Your task to perform on an android device: Turn on the flashlight Image 0: 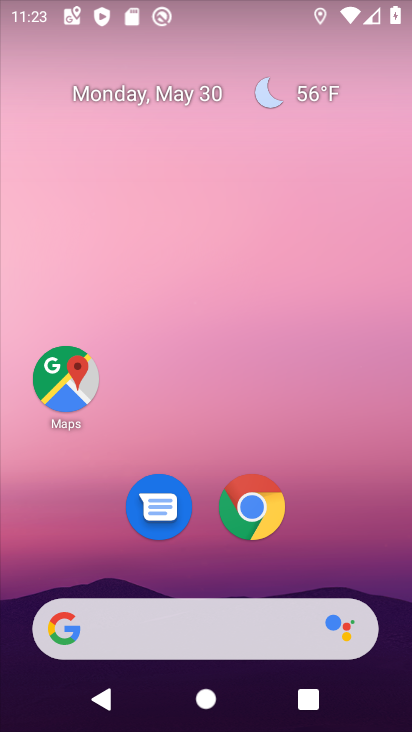
Step 0: click (244, 725)
Your task to perform on an android device: Turn on the flashlight Image 1: 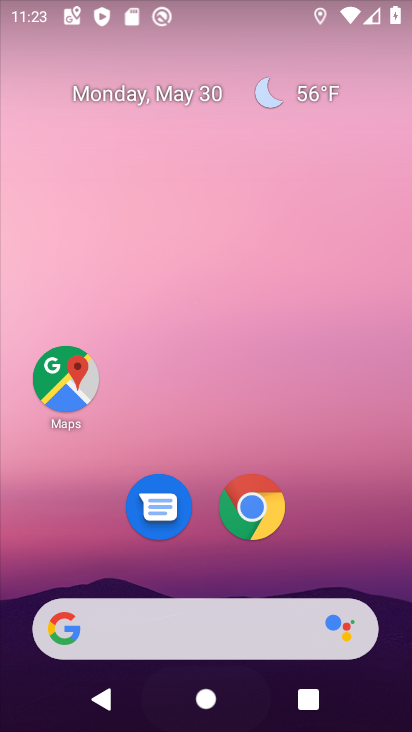
Step 1: drag from (225, 27) to (209, 550)
Your task to perform on an android device: Turn on the flashlight Image 2: 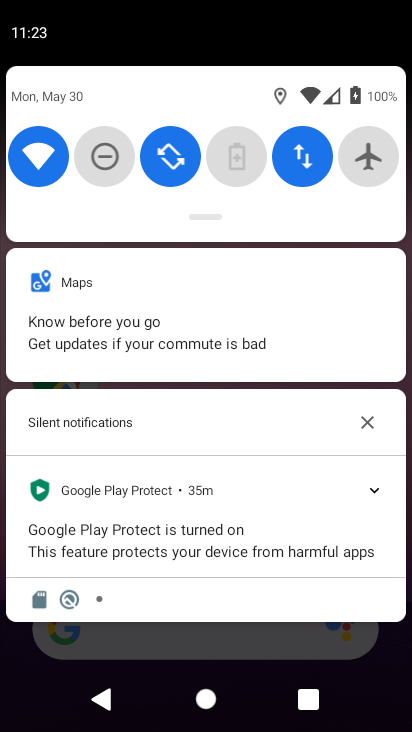
Step 2: drag from (214, 219) to (222, 634)
Your task to perform on an android device: Turn on the flashlight Image 3: 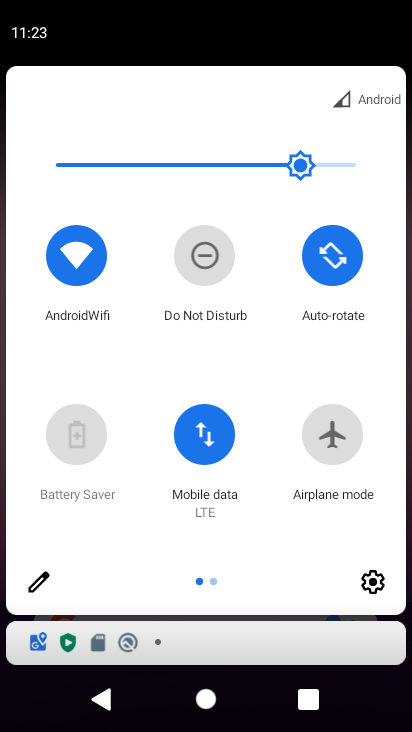
Step 3: click (40, 577)
Your task to perform on an android device: Turn on the flashlight Image 4: 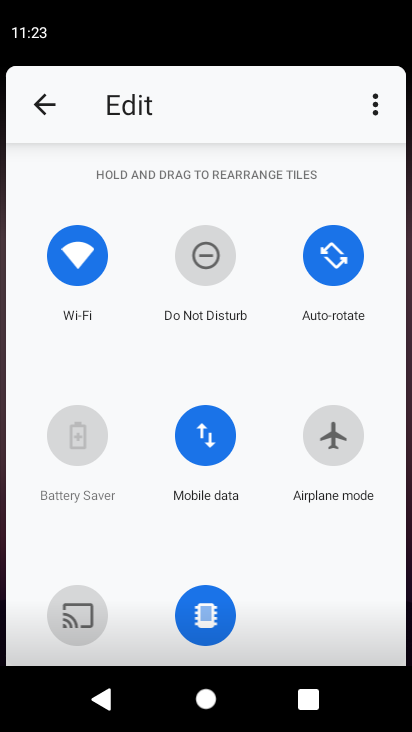
Step 4: task complete